Your task to perform on an android device: turn off notifications settings in the gmail app Image 0: 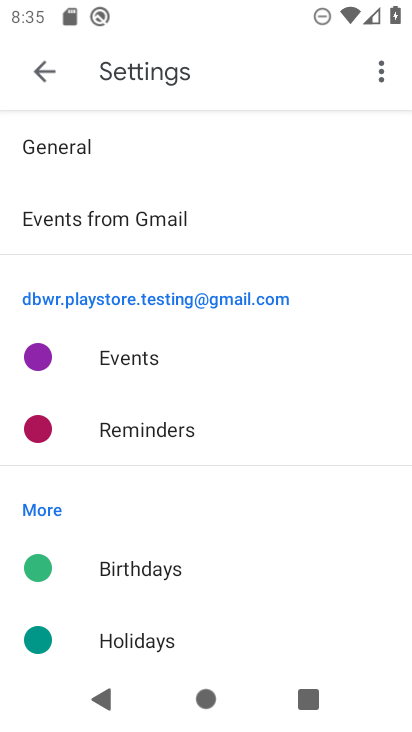
Step 0: press home button
Your task to perform on an android device: turn off notifications settings in the gmail app Image 1: 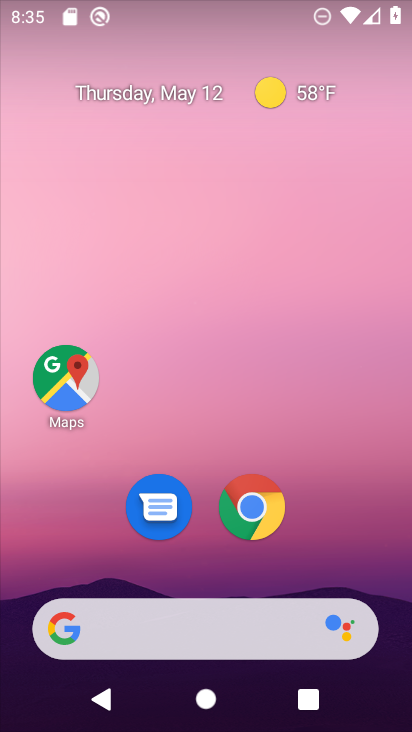
Step 1: drag from (216, 582) to (229, 208)
Your task to perform on an android device: turn off notifications settings in the gmail app Image 2: 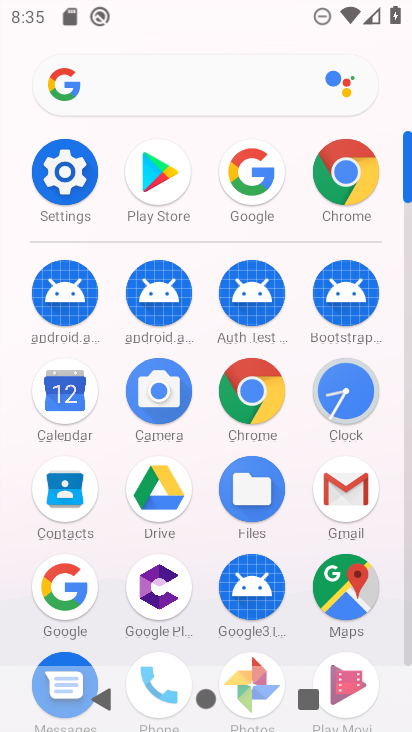
Step 2: click (334, 478)
Your task to perform on an android device: turn off notifications settings in the gmail app Image 3: 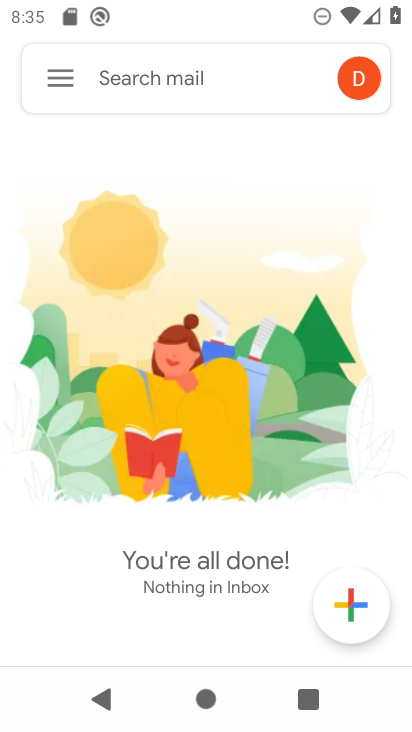
Step 3: click (70, 92)
Your task to perform on an android device: turn off notifications settings in the gmail app Image 4: 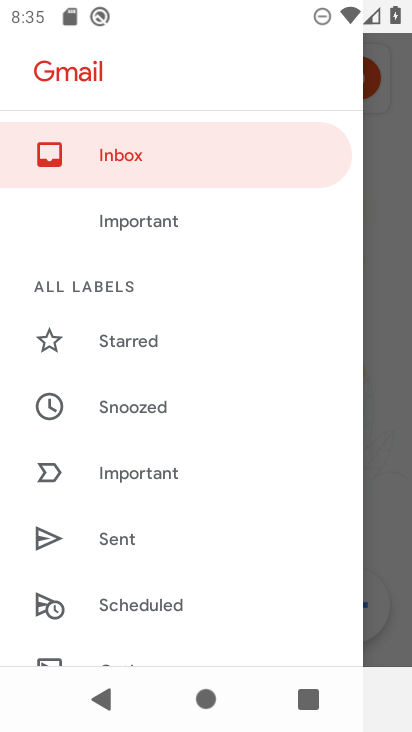
Step 4: drag from (202, 582) to (220, 294)
Your task to perform on an android device: turn off notifications settings in the gmail app Image 5: 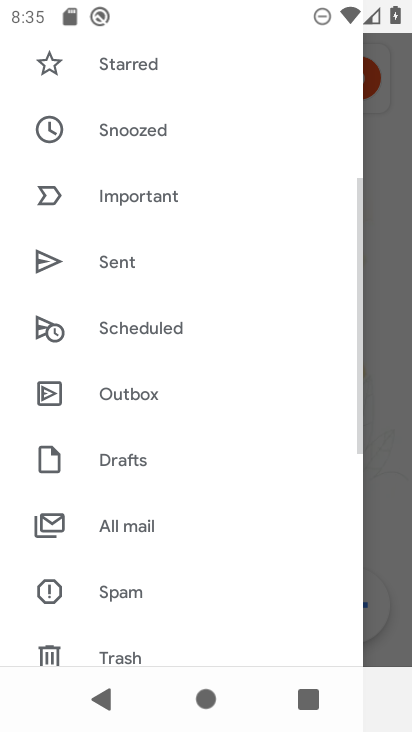
Step 5: drag from (198, 562) to (207, 295)
Your task to perform on an android device: turn off notifications settings in the gmail app Image 6: 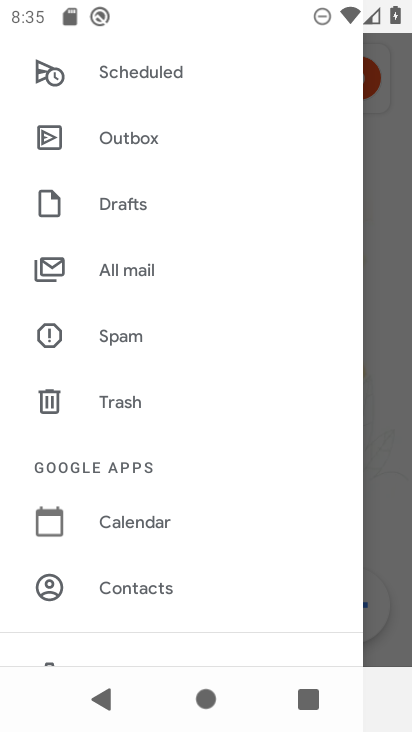
Step 6: drag from (136, 603) to (172, 349)
Your task to perform on an android device: turn off notifications settings in the gmail app Image 7: 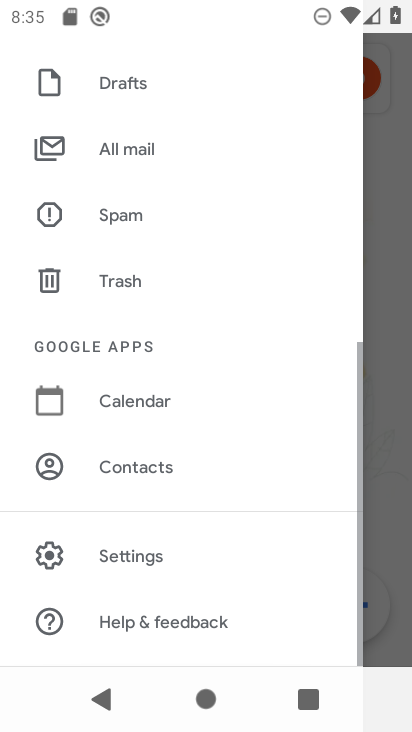
Step 7: click (134, 555)
Your task to perform on an android device: turn off notifications settings in the gmail app Image 8: 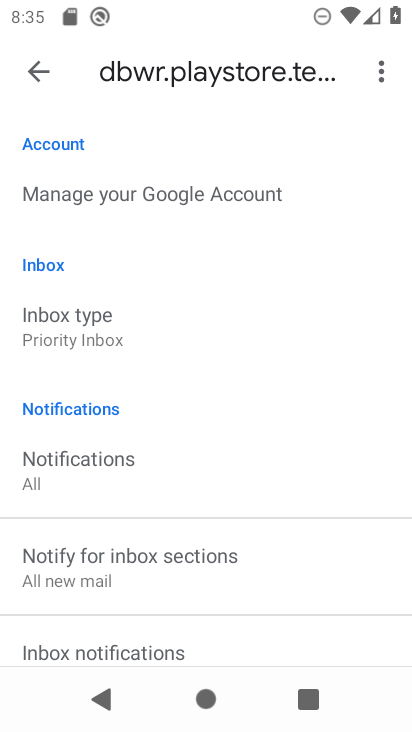
Step 8: drag from (180, 532) to (190, 344)
Your task to perform on an android device: turn off notifications settings in the gmail app Image 9: 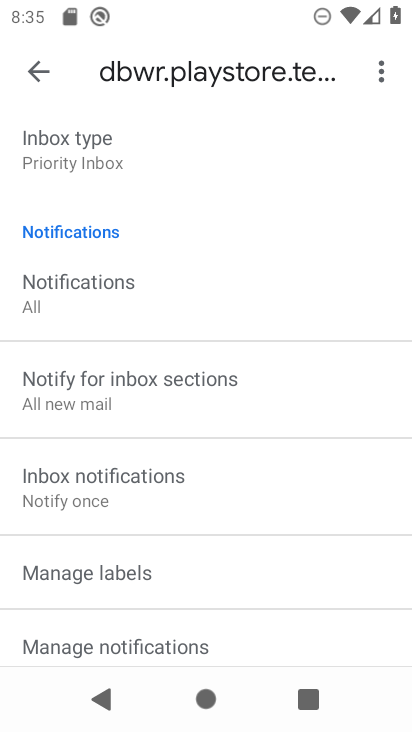
Step 9: click (128, 635)
Your task to perform on an android device: turn off notifications settings in the gmail app Image 10: 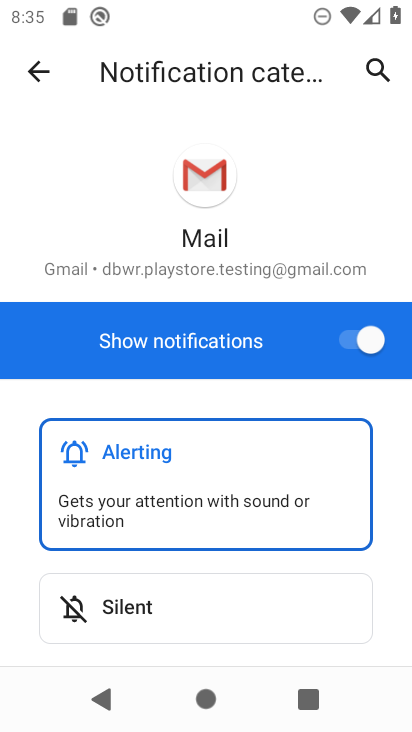
Step 10: click (342, 327)
Your task to perform on an android device: turn off notifications settings in the gmail app Image 11: 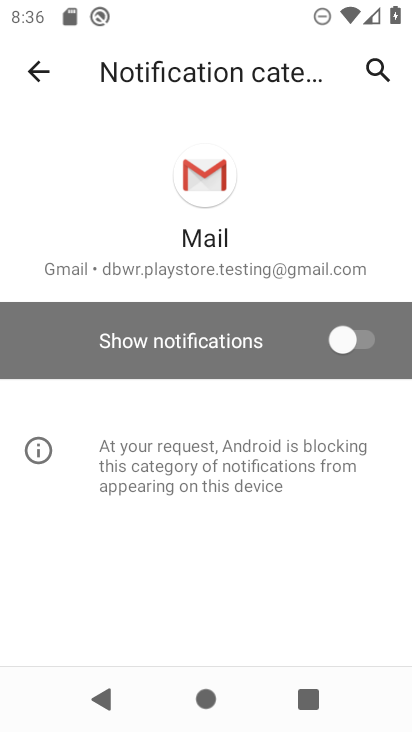
Step 11: task complete